Your task to perform on an android device: Is it going to rain today? Image 0: 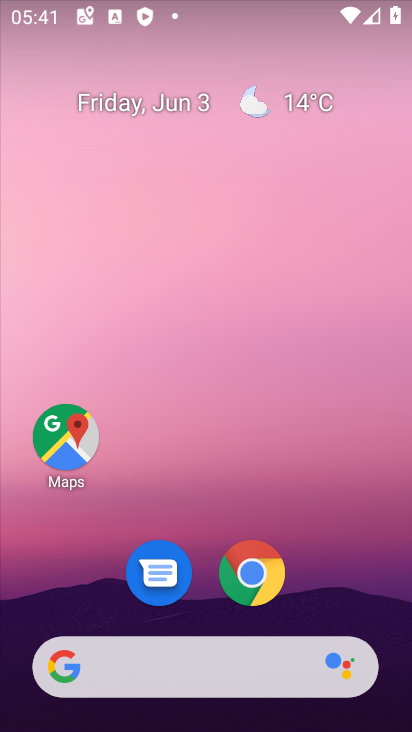
Step 0: click (227, 674)
Your task to perform on an android device: Is it going to rain today? Image 1: 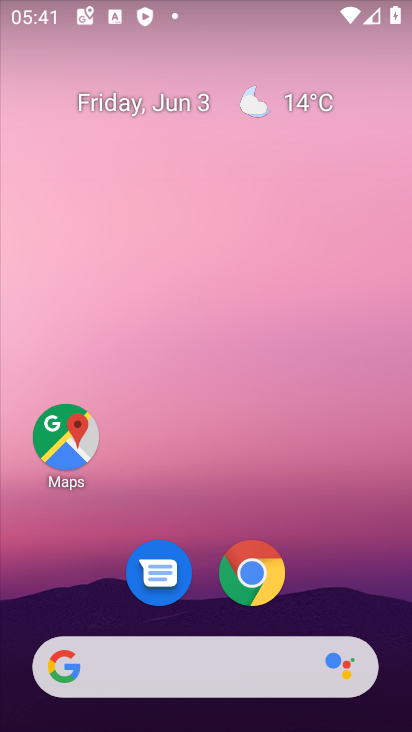
Step 1: drag from (131, 310) to (378, 307)
Your task to perform on an android device: Is it going to rain today? Image 2: 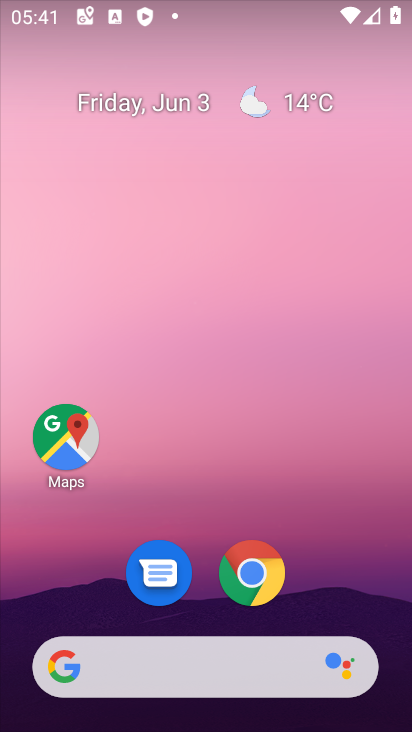
Step 2: drag from (10, 321) to (383, 298)
Your task to perform on an android device: Is it going to rain today? Image 3: 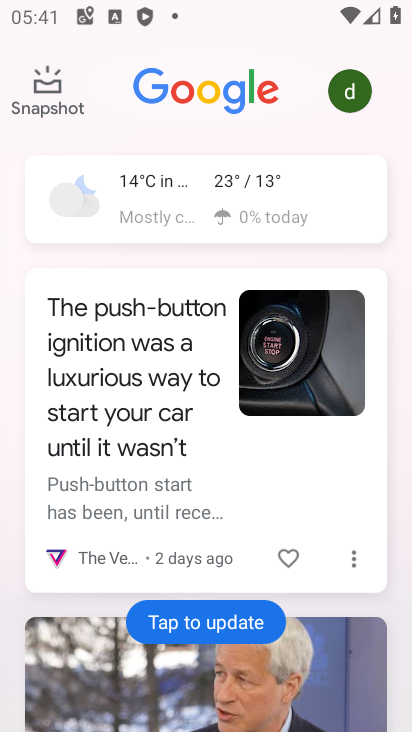
Step 3: click (232, 216)
Your task to perform on an android device: Is it going to rain today? Image 4: 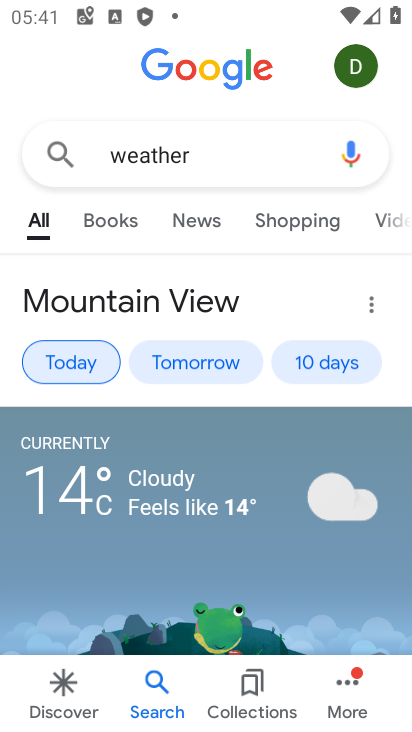
Step 4: task complete